Your task to perform on an android device: Do I have any events today? Image 0: 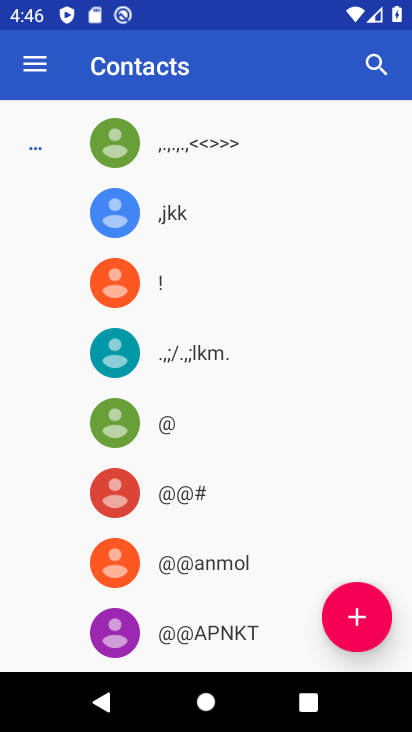
Step 0: press home button
Your task to perform on an android device: Do I have any events today? Image 1: 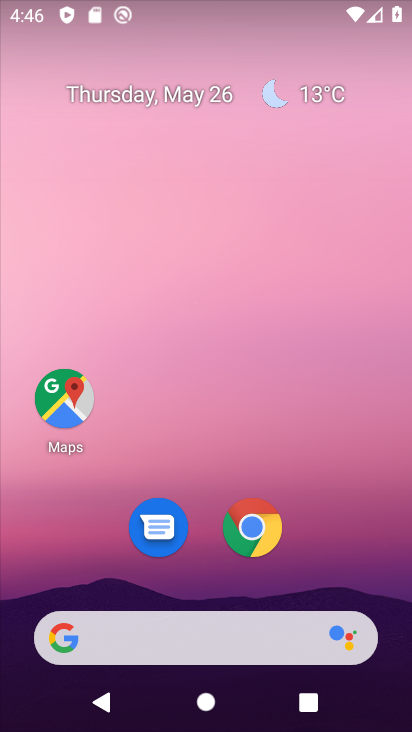
Step 1: drag from (368, 554) to (365, 48)
Your task to perform on an android device: Do I have any events today? Image 2: 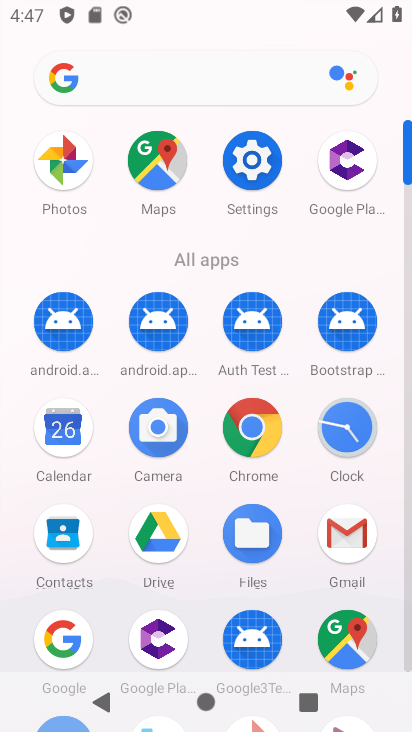
Step 2: click (405, 642)
Your task to perform on an android device: Do I have any events today? Image 3: 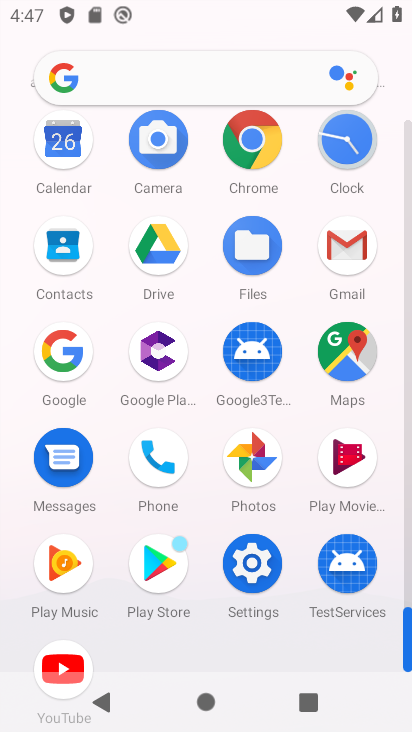
Step 3: click (70, 176)
Your task to perform on an android device: Do I have any events today? Image 4: 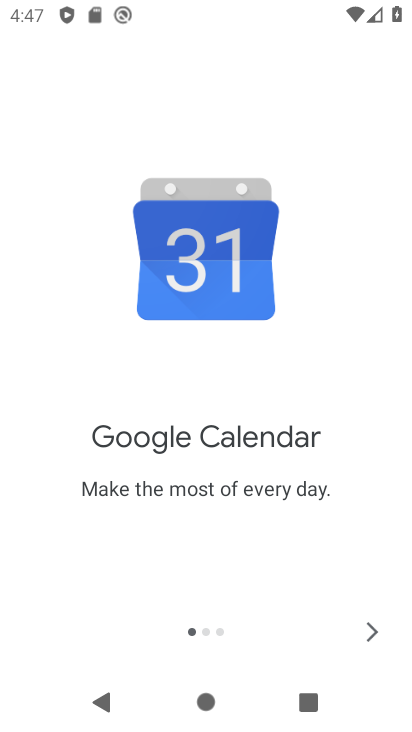
Step 4: click (364, 637)
Your task to perform on an android device: Do I have any events today? Image 5: 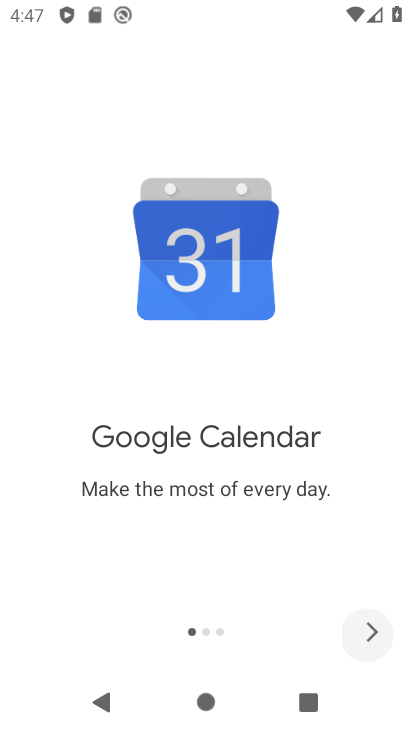
Step 5: click (364, 637)
Your task to perform on an android device: Do I have any events today? Image 6: 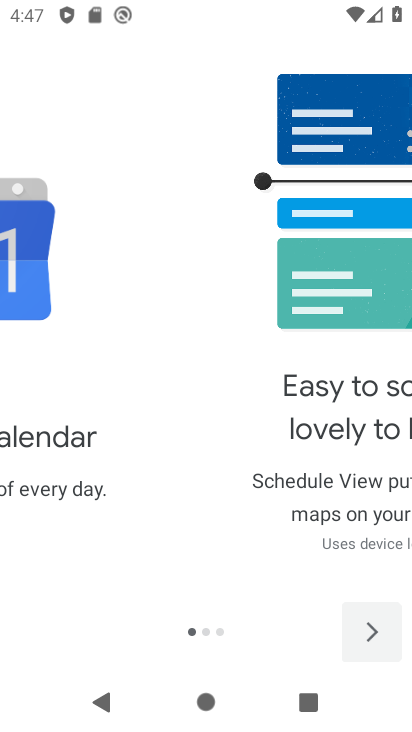
Step 6: click (364, 637)
Your task to perform on an android device: Do I have any events today? Image 7: 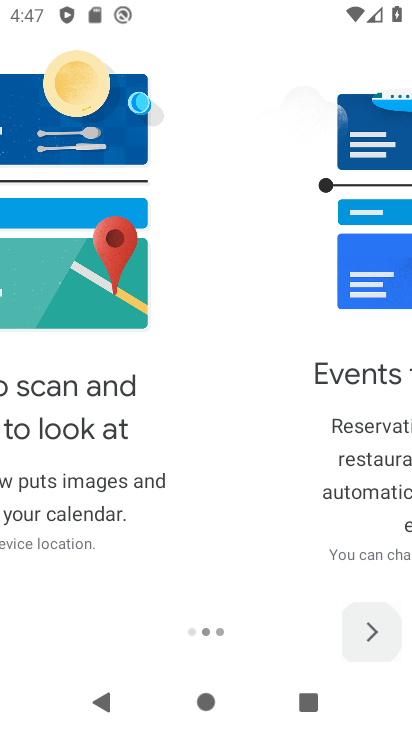
Step 7: click (364, 637)
Your task to perform on an android device: Do I have any events today? Image 8: 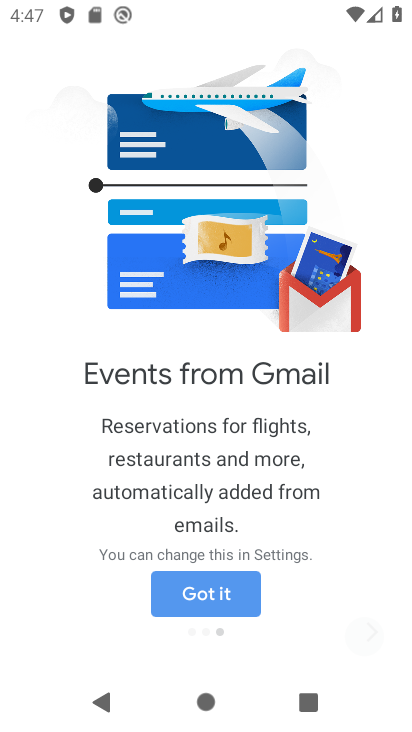
Step 8: click (364, 637)
Your task to perform on an android device: Do I have any events today? Image 9: 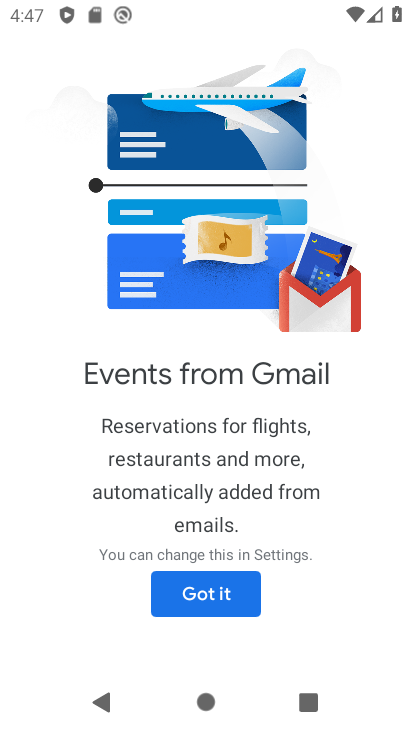
Step 9: click (364, 637)
Your task to perform on an android device: Do I have any events today? Image 10: 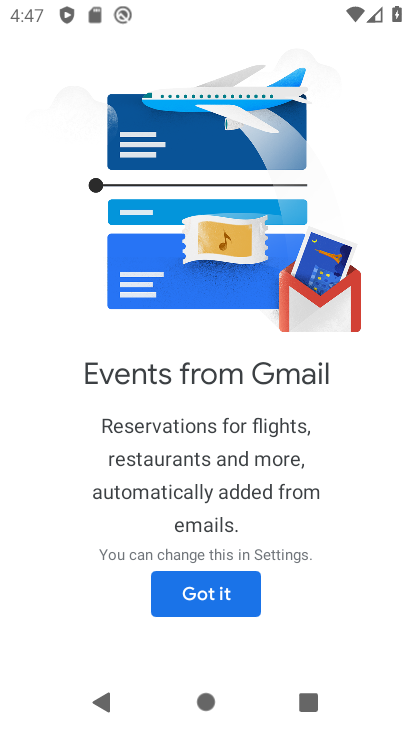
Step 10: click (229, 594)
Your task to perform on an android device: Do I have any events today? Image 11: 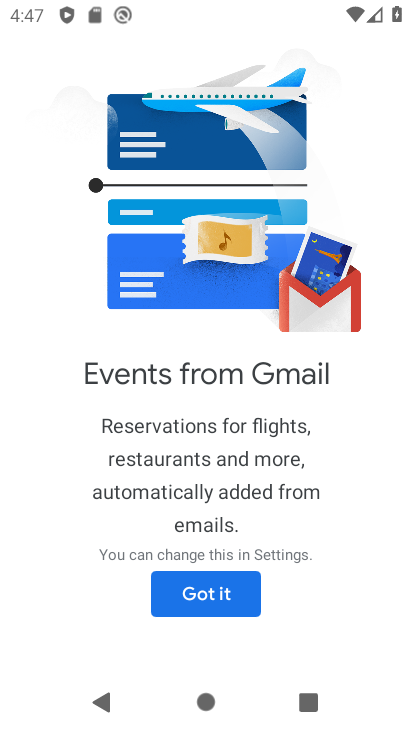
Step 11: click (229, 594)
Your task to perform on an android device: Do I have any events today? Image 12: 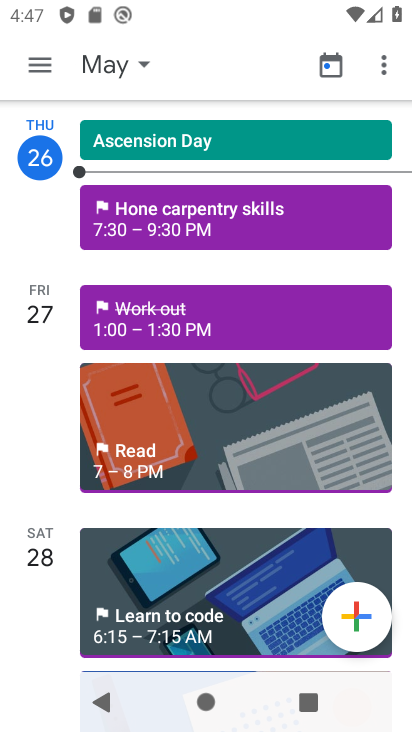
Step 12: task complete